Your task to perform on an android device: open app "Google Chat" (install if not already installed) Image 0: 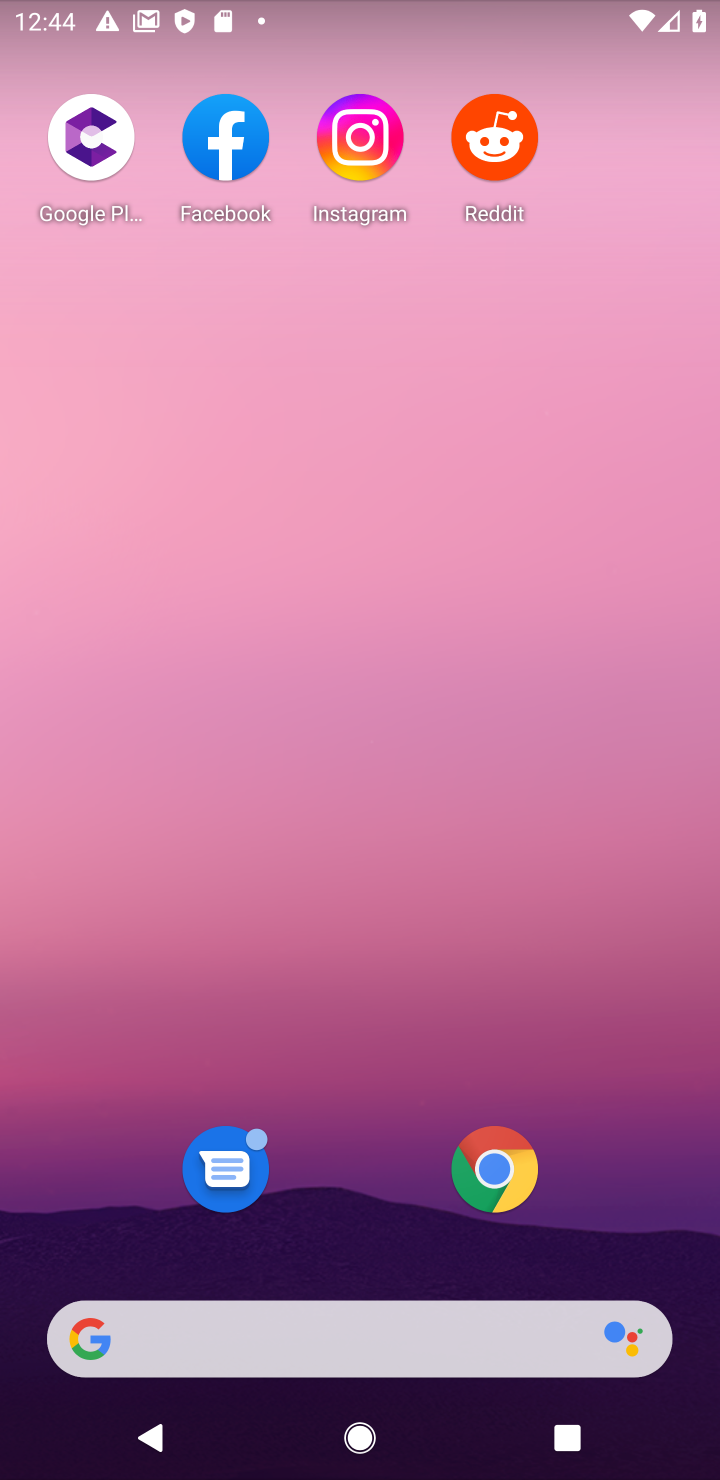
Step 0: press back button
Your task to perform on an android device: open app "Google Chat" (install if not already installed) Image 1: 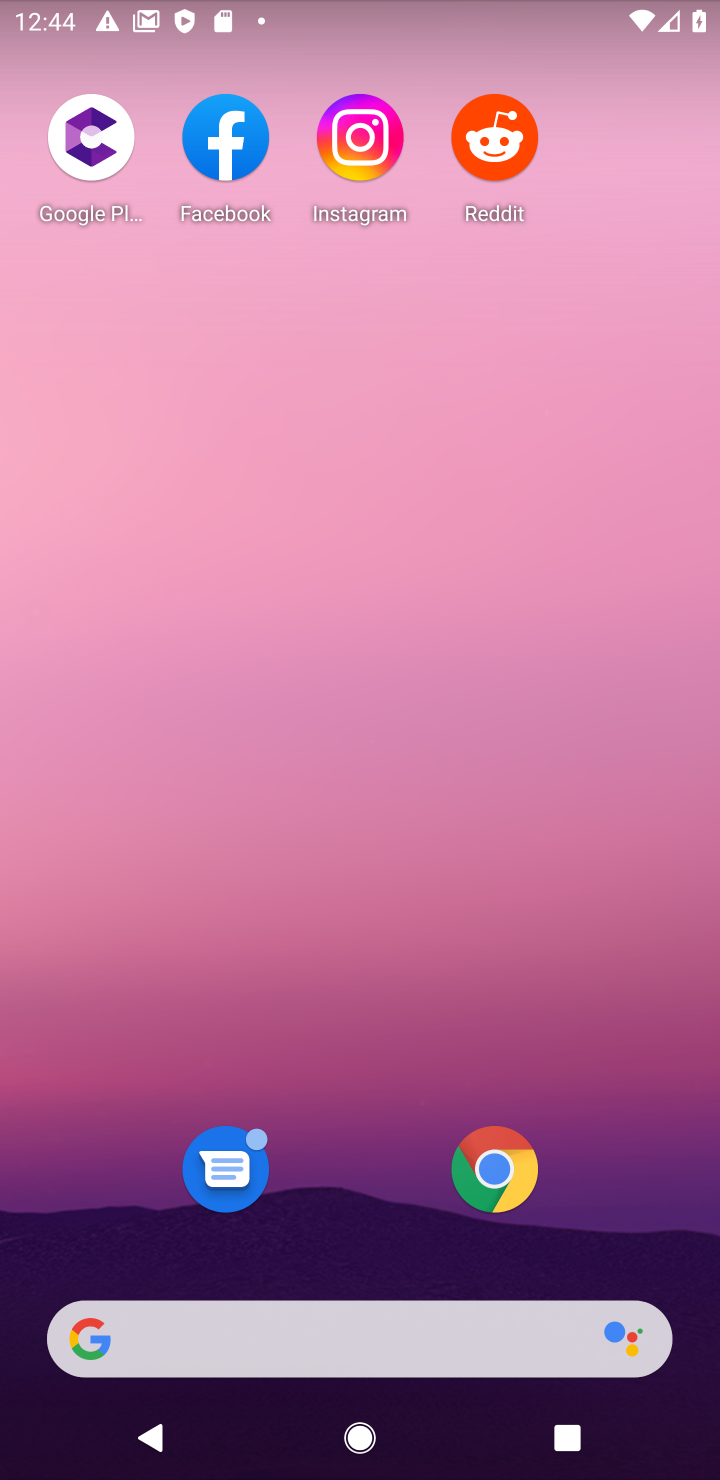
Step 1: drag from (329, 922) to (420, 164)
Your task to perform on an android device: open app "Google Chat" (install if not already installed) Image 2: 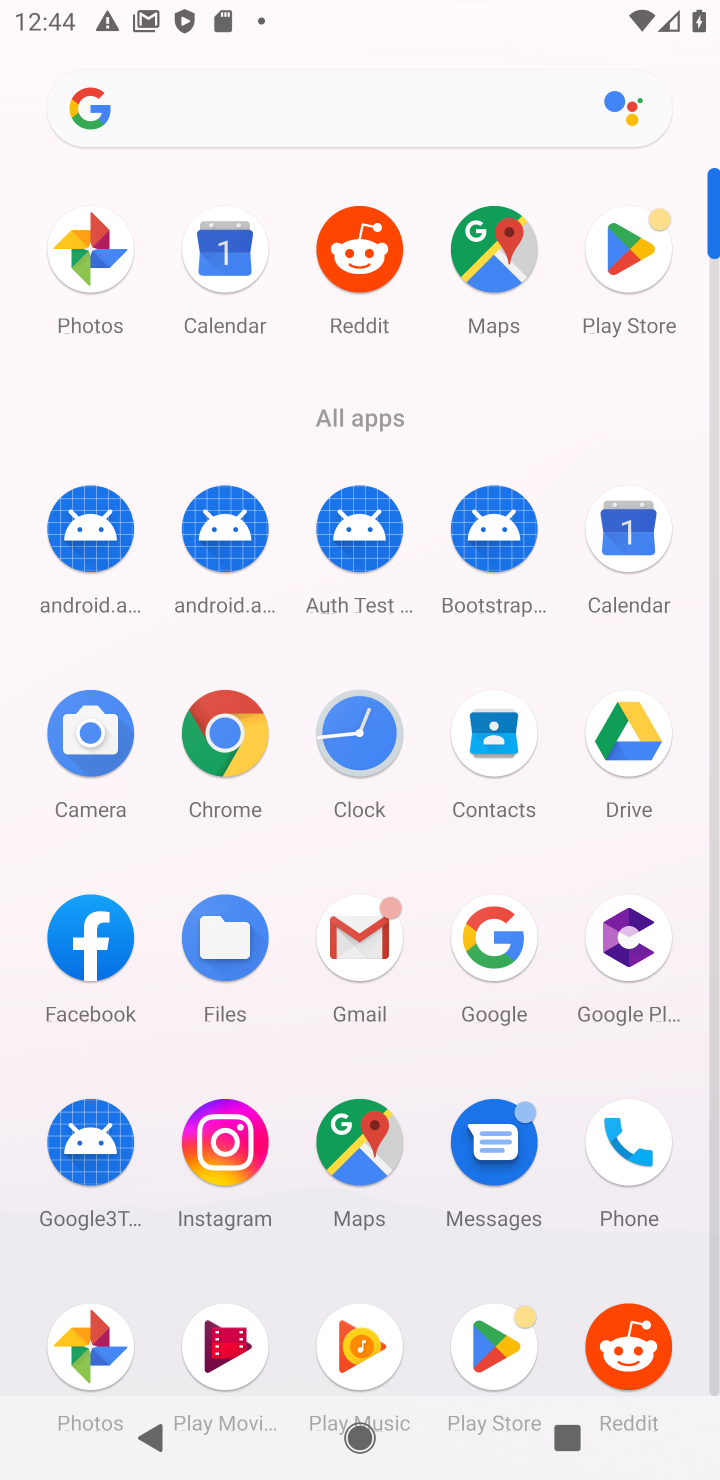
Step 2: click (633, 302)
Your task to perform on an android device: open app "Google Chat" (install if not already installed) Image 3: 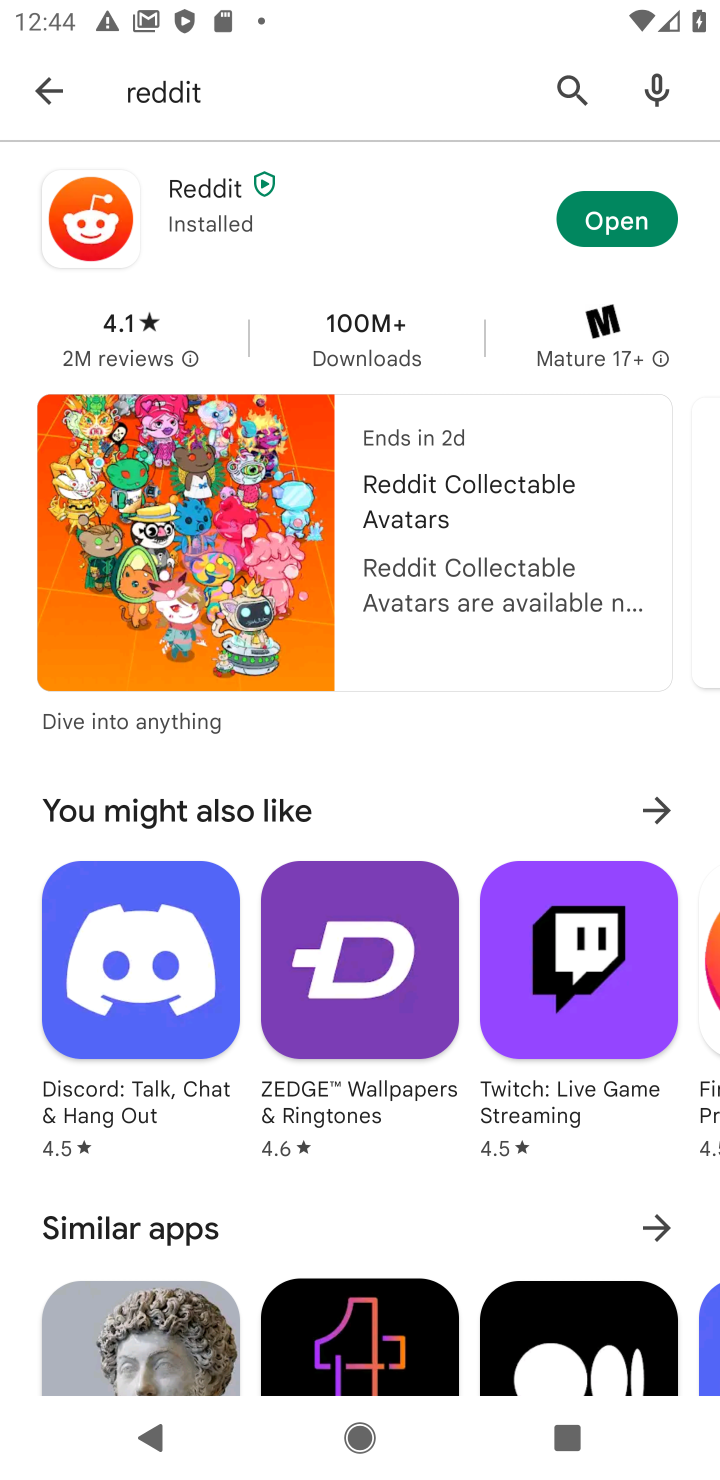
Step 3: click (46, 103)
Your task to perform on an android device: open app "Google Chat" (install if not already installed) Image 4: 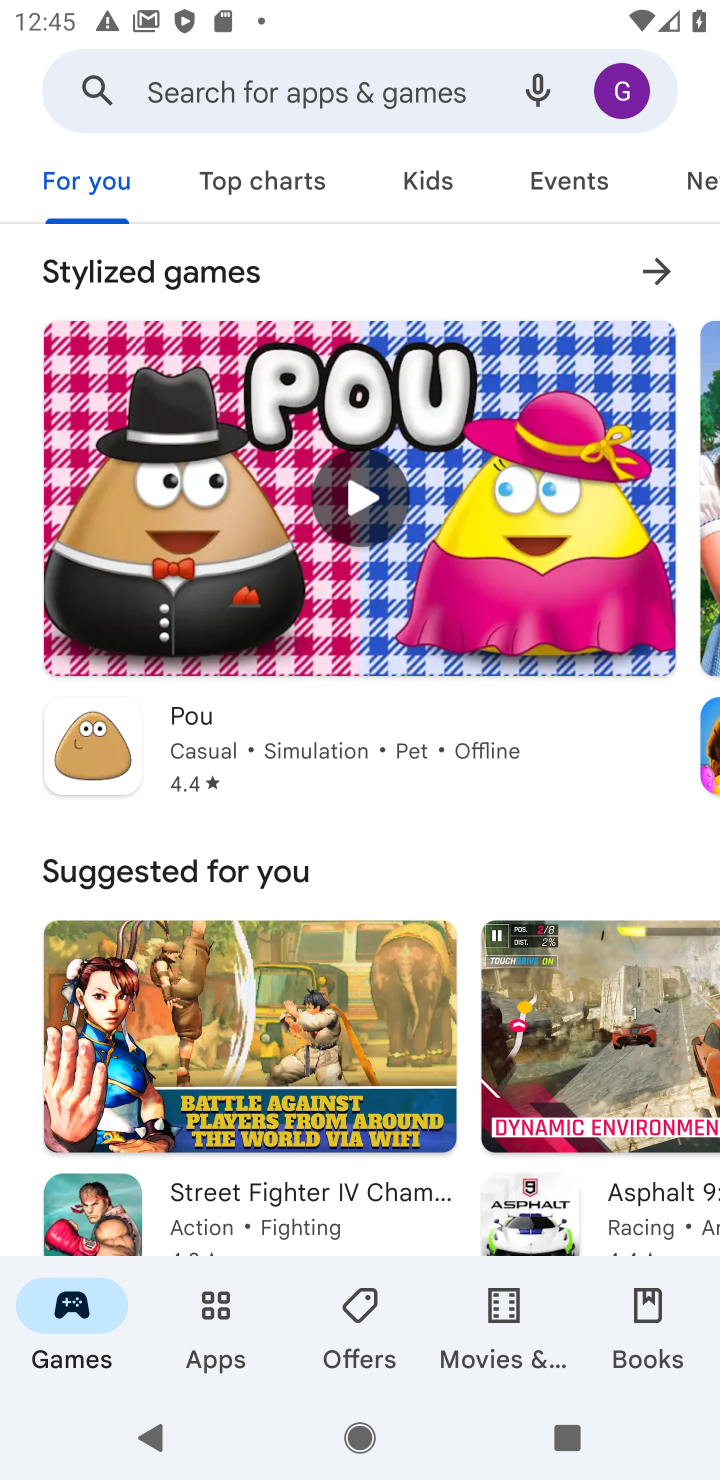
Step 4: click (275, 66)
Your task to perform on an android device: open app "Google Chat" (install if not already installed) Image 5: 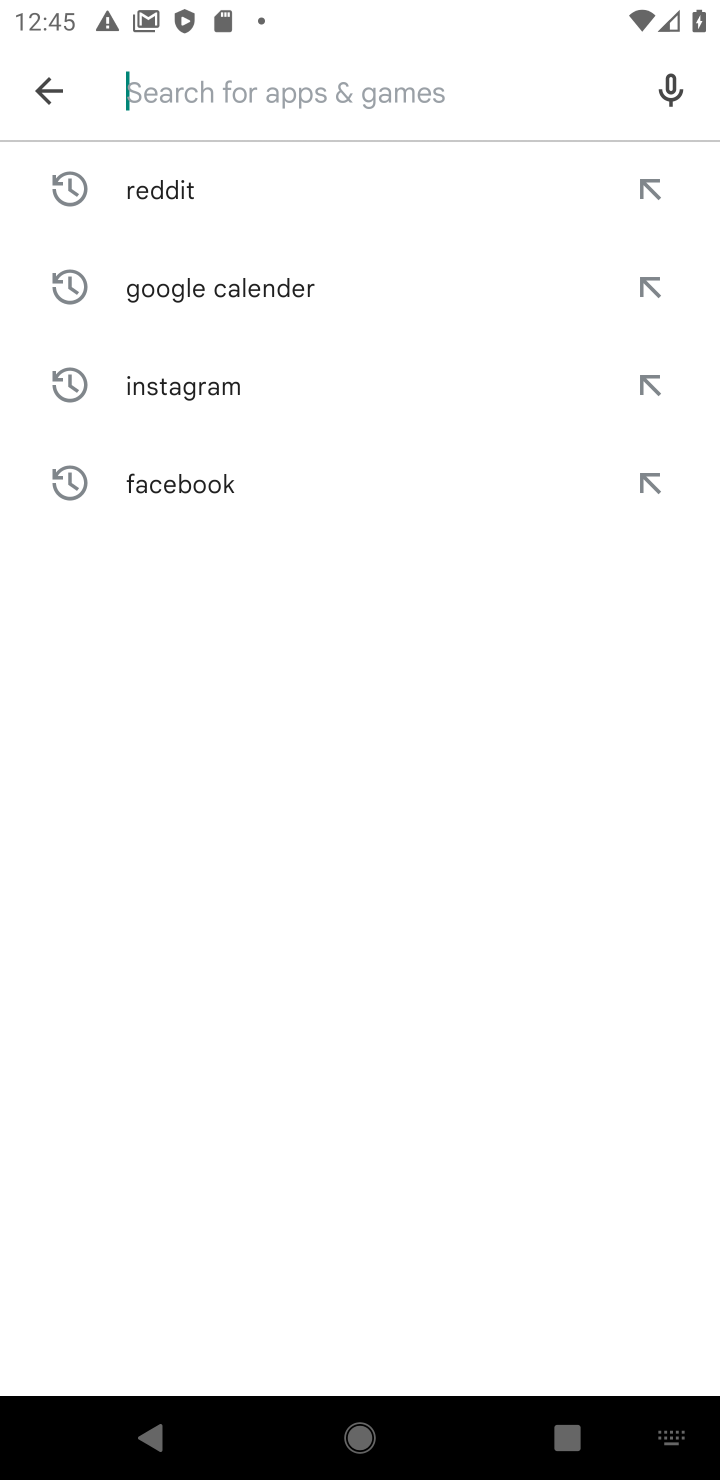
Step 5: type "Google Chat"
Your task to perform on an android device: open app "Google Chat" (install if not already installed) Image 6: 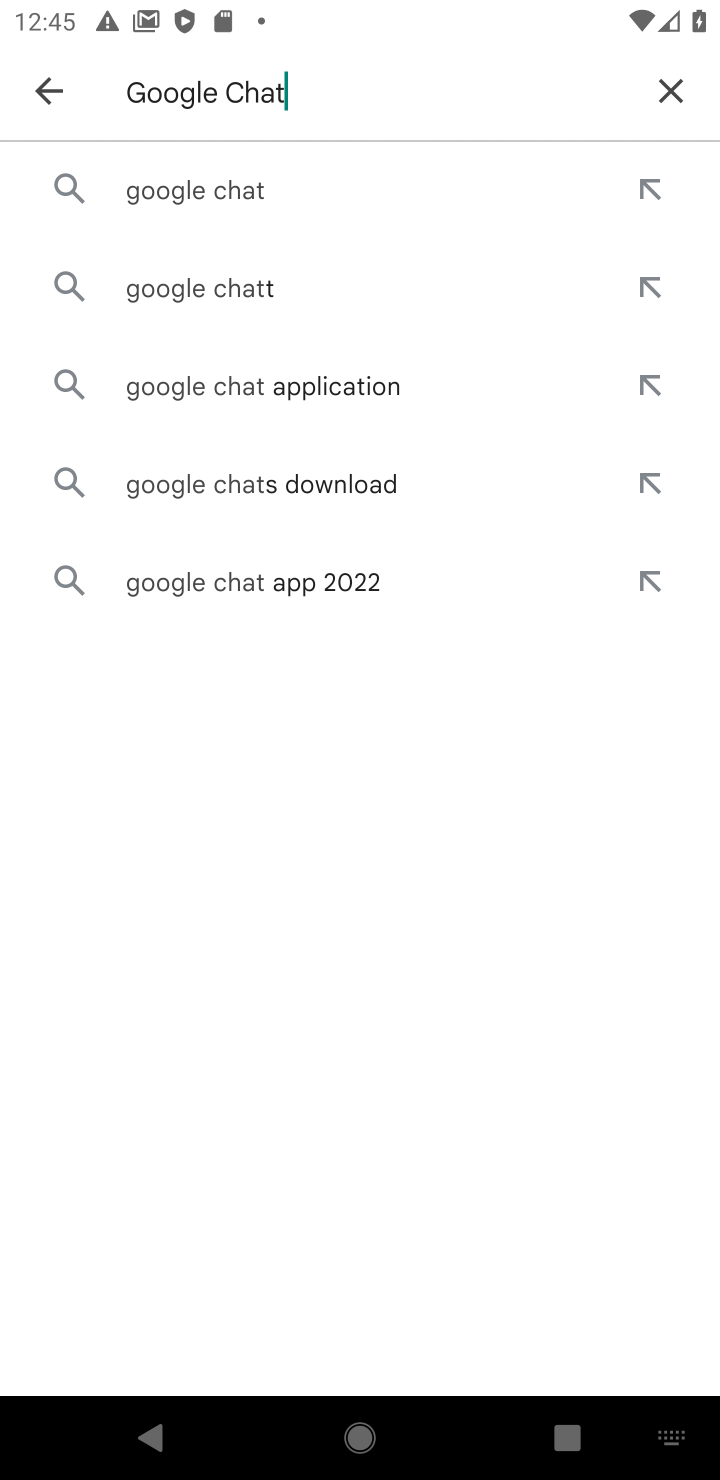
Step 6: click (219, 195)
Your task to perform on an android device: open app "Google Chat" (install if not already installed) Image 7: 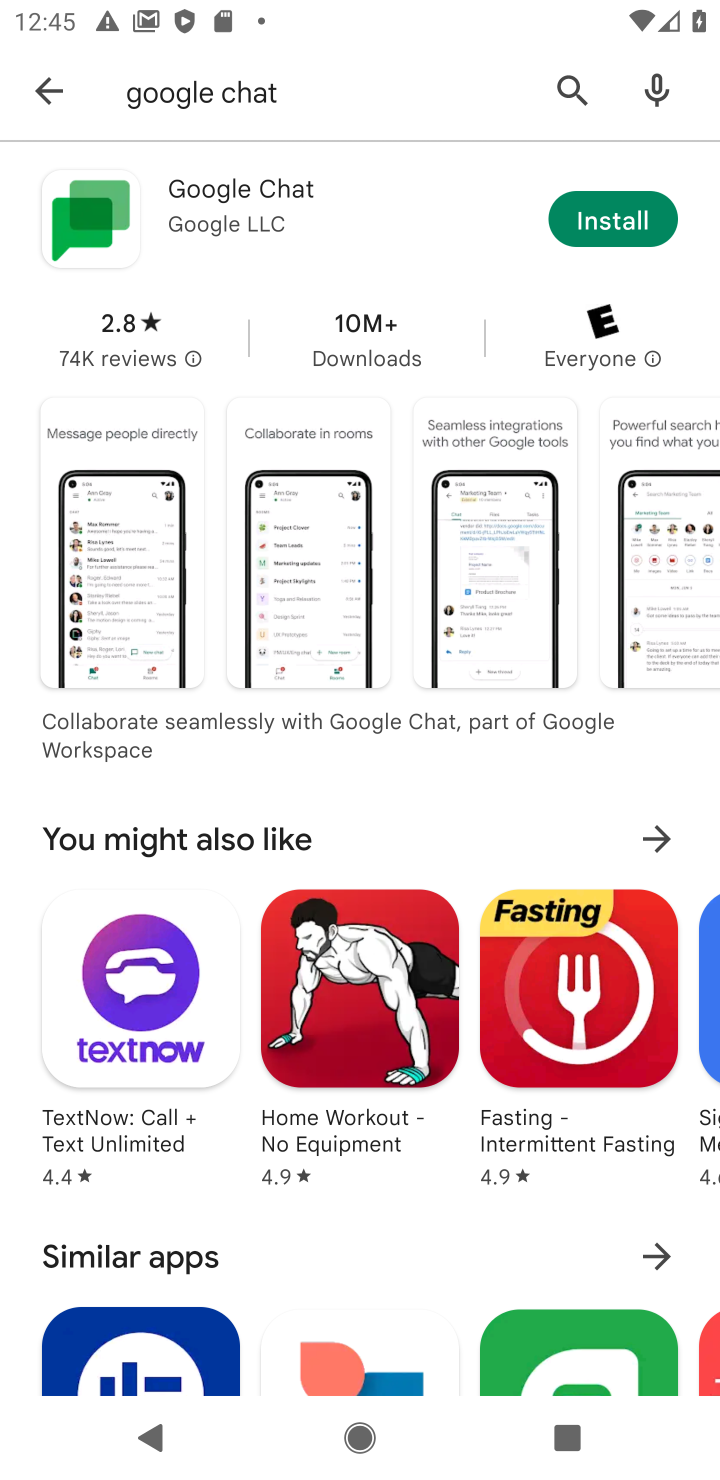
Step 7: click (606, 228)
Your task to perform on an android device: open app "Google Chat" (install if not already installed) Image 8: 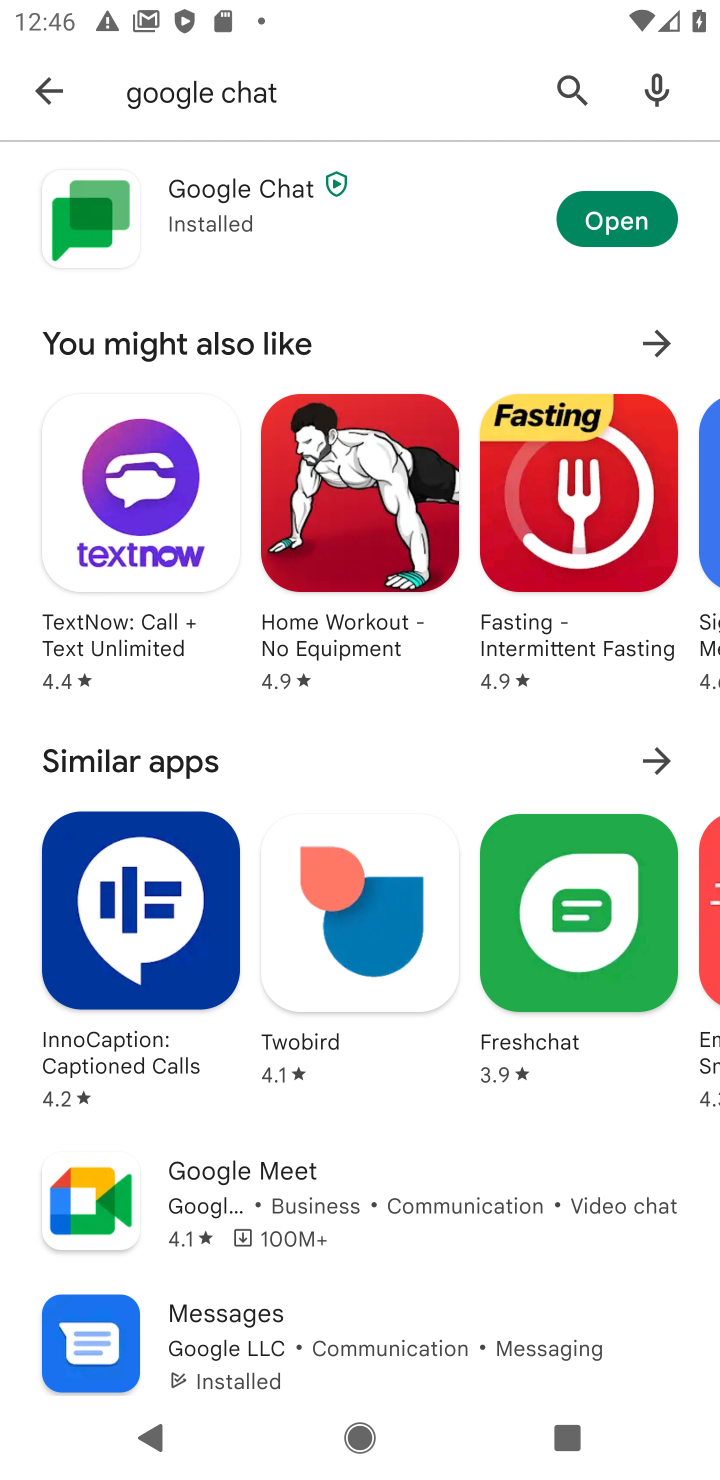
Step 8: click (627, 213)
Your task to perform on an android device: open app "Google Chat" (install if not already installed) Image 9: 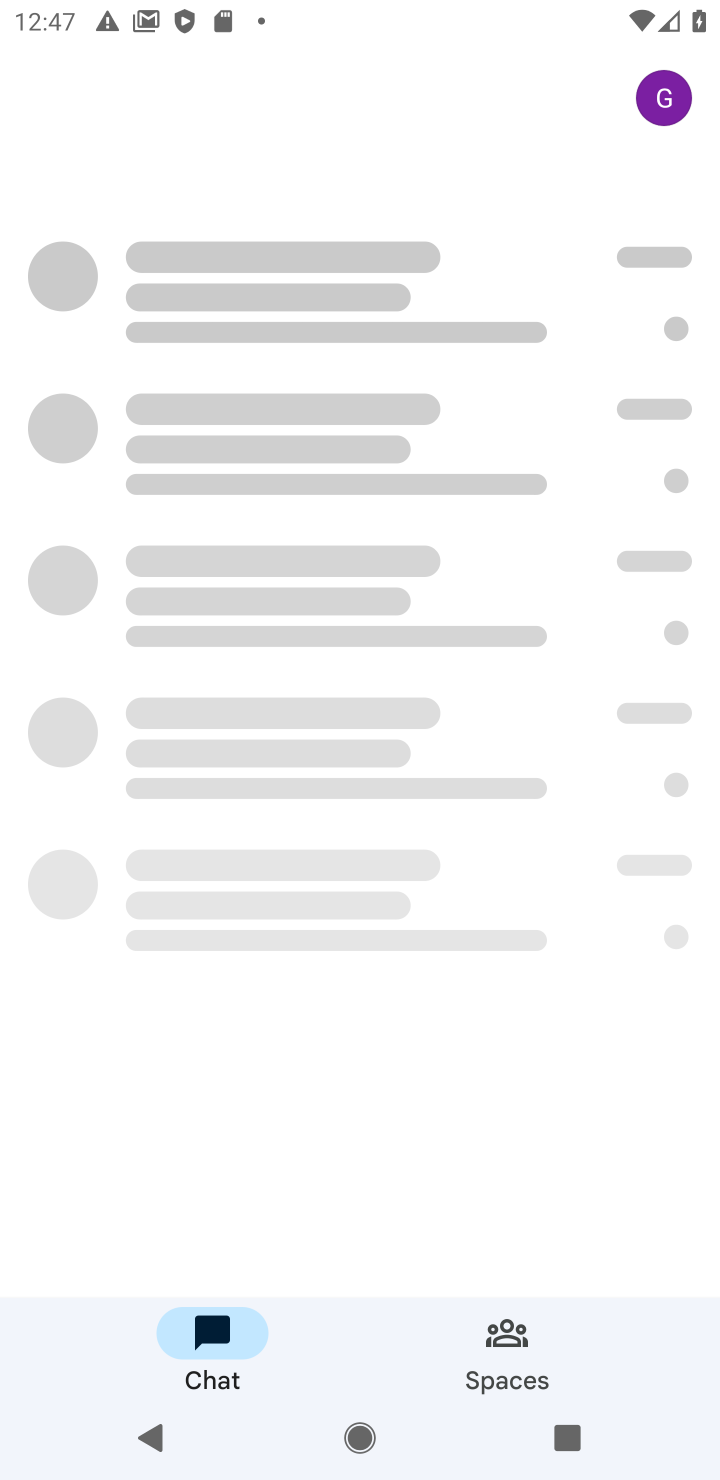
Step 9: task complete